Your task to perform on an android device: turn on translation in the chrome app Image 0: 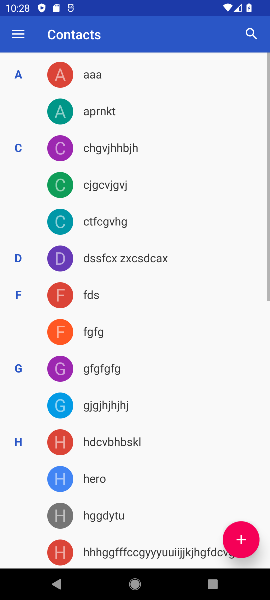
Step 0: drag from (204, 551) to (173, 164)
Your task to perform on an android device: turn on translation in the chrome app Image 1: 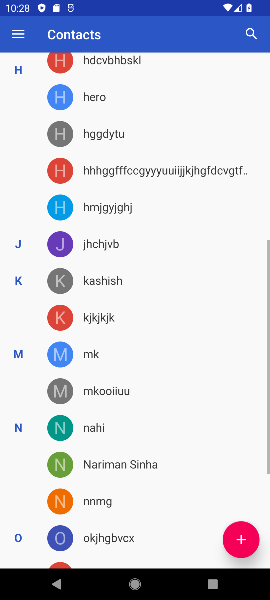
Step 1: drag from (171, 397) to (171, 107)
Your task to perform on an android device: turn on translation in the chrome app Image 2: 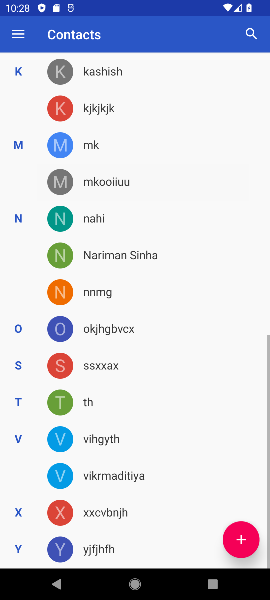
Step 2: press back button
Your task to perform on an android device: turn on translation in the chrome app Image 3: 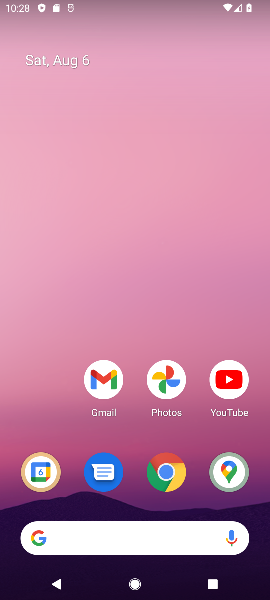
Step 3: drag from (173, 547) to (130, 86)
Your task to perform on an android device: turn on translation in the chrome app Image 4: 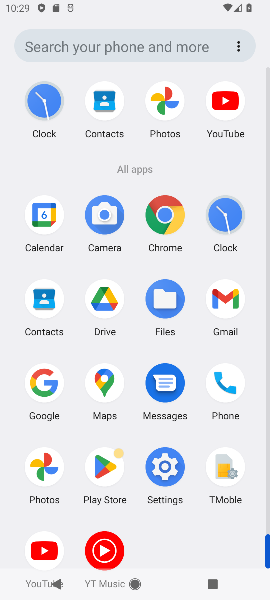
Step 4: click (166, 226)
Your task to perform on an android device: turn on translation in the chrome app Image 5: 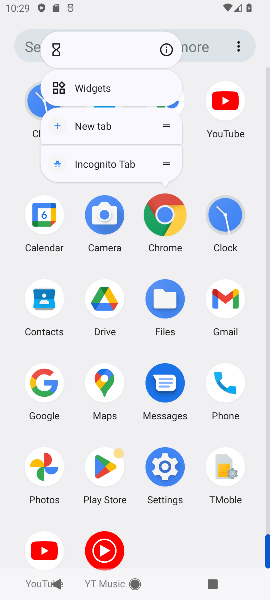
Step 5: click (166, 225)
Your task to perform on an android device: turn on translation in the chrome app Image 6: 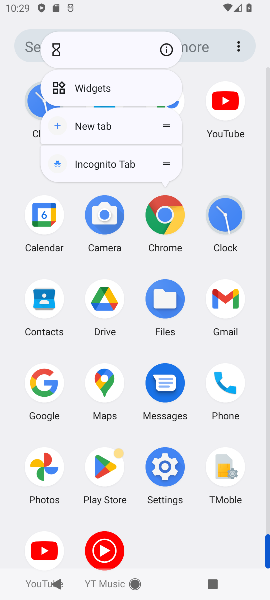
Step 6: click (167, 225)
Your task to perform on an android device: turn on translation in the chrome app Image 7: 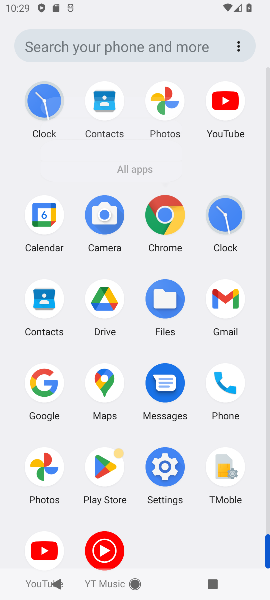
Step 7: click (182, 219)
Your task to perform on an android device: turn on translation in the chrome app Image 8: 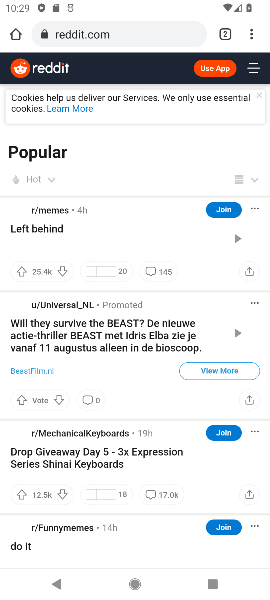
Step 8: click (253, 33)
Your task to perform on an android device: turn on translation in the chrome app Image 9: 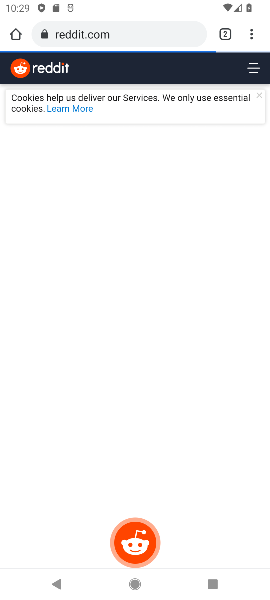
Step 9: drag from (249, 30) to (151, 475)
Your task to perform on an android device: turn on translation in the chrome app Image 10: 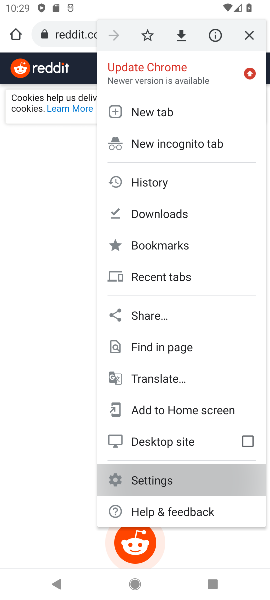
Step 10: click (151, 476)
Your task to perform on an android device: turn on translation in the chrome app Image 11: 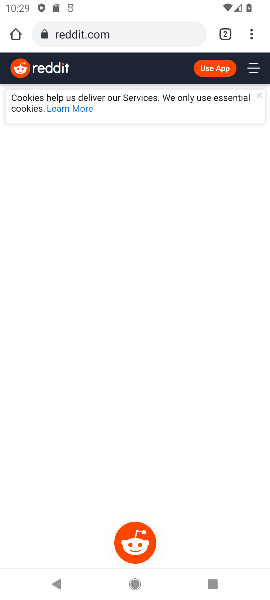
Step 11: click (150, 475)
Your task to perform on an android device: turn on translation in the chrome app Image 12: 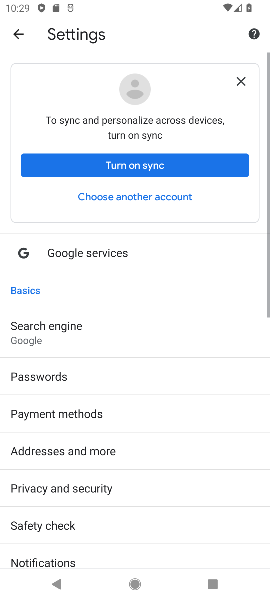
Step 12: drag from (70, 455) to (25, 90)
Your task to perform on an android device: turn on translation in the chrome app Image 13: 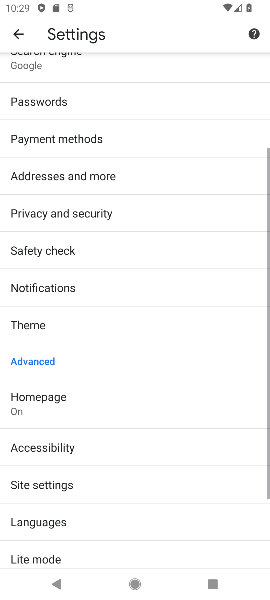
Step 13: drag from (116, 349) to (54, 99)
Your task to perform on an android device: turn on translation in the chrome app Image 14: 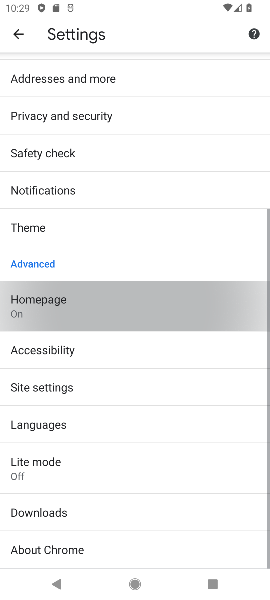
Step 14: drag from (138, 375) to (93, 70)
Your task to perform on an android device: turn on translation in the chrome app Image 15: 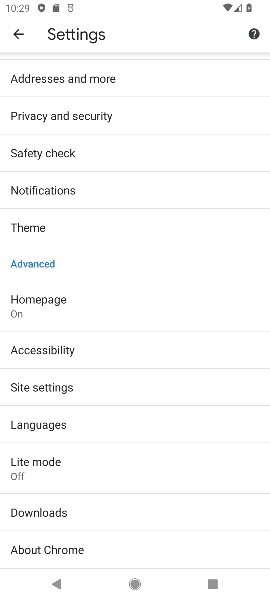
Step 15: click (159, 423)
Your task to perform on an android device: turn on translation in the chrome app Image 16: 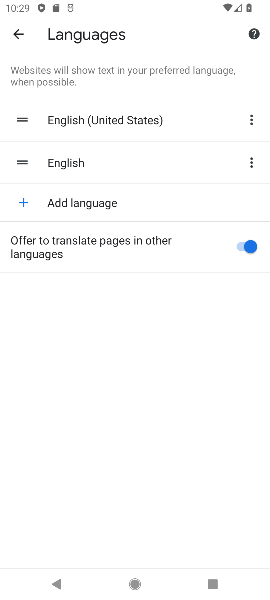
Step 16: task complete